Your task to perform on an android device: turn on data saver in the chrome app Image 0: 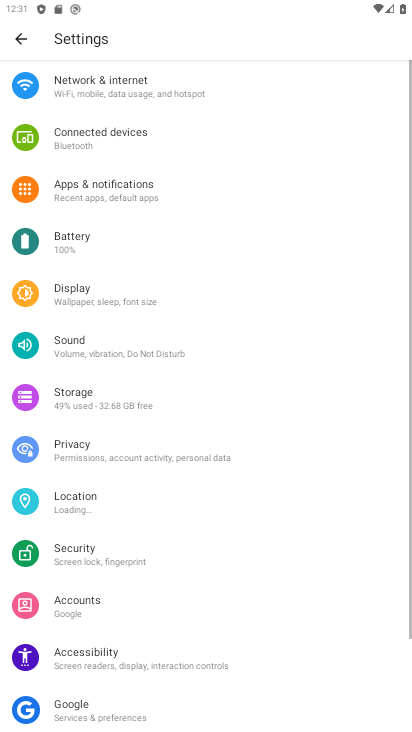
Step 0: press home button
Your task to perform on an android device: turn on data saver in the chrome app Image 1: 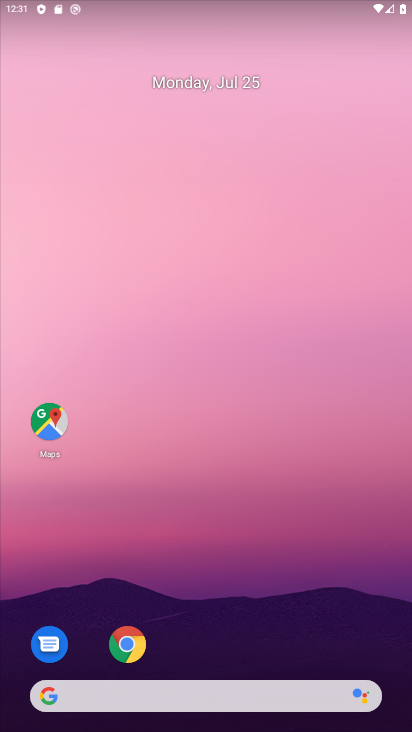
Step 1: drag from (197, 695) to (207, 213)
Your task to perform on an android device: turn on data saver in the chrome app Image 2: 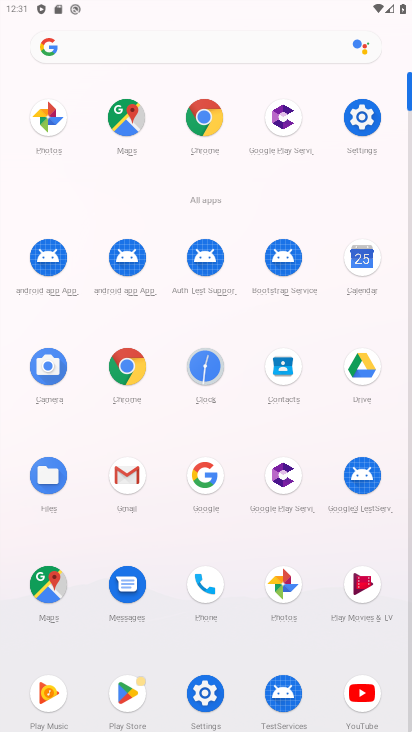
Step 2: click (128, 369)
Your task to perform on an android device: turn on data saver in the chrome app Image 3: 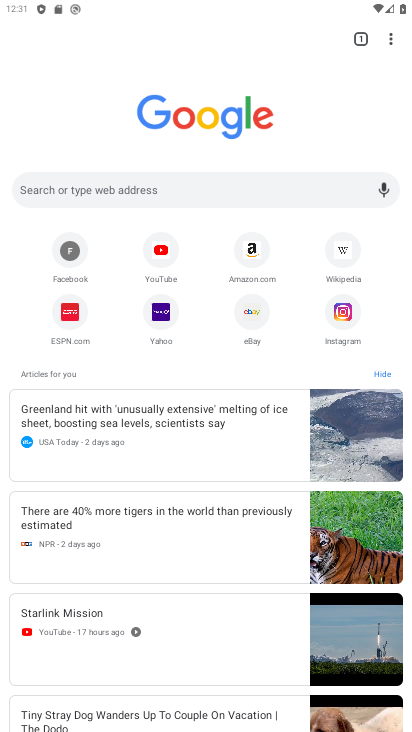
Step 3: click (392, 37)
Your task to perform on an android device: turn on data saver in the chrome app Image 4: 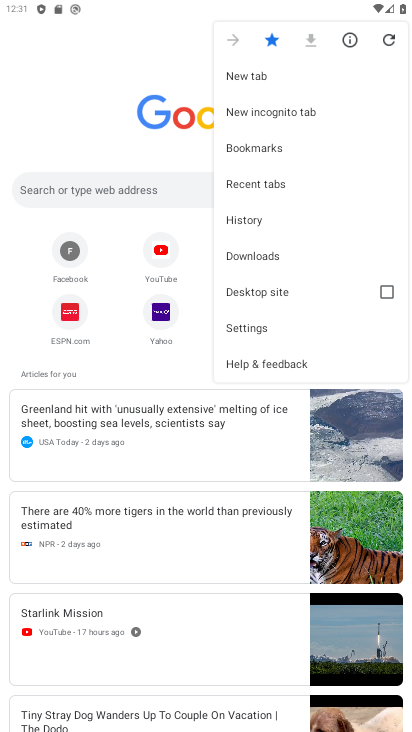
Step 4: click (249, 328)
Your task to perform on an android device: turn on data saver in the chrome app Image 5: 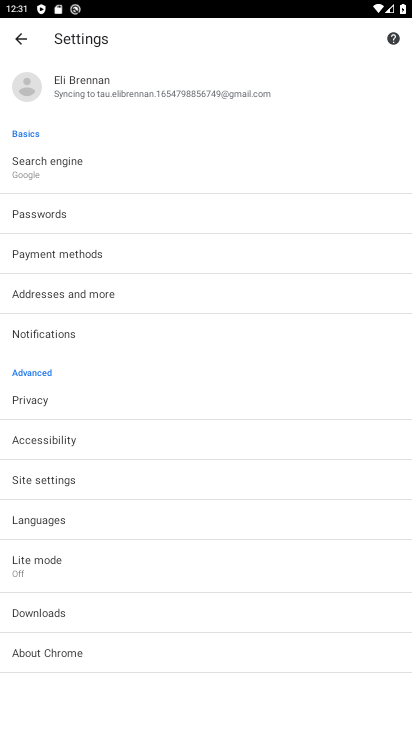
Step 5: click (36, 561)
Your task to perform on an android device: turn on data saver in the chrome app Image 6: 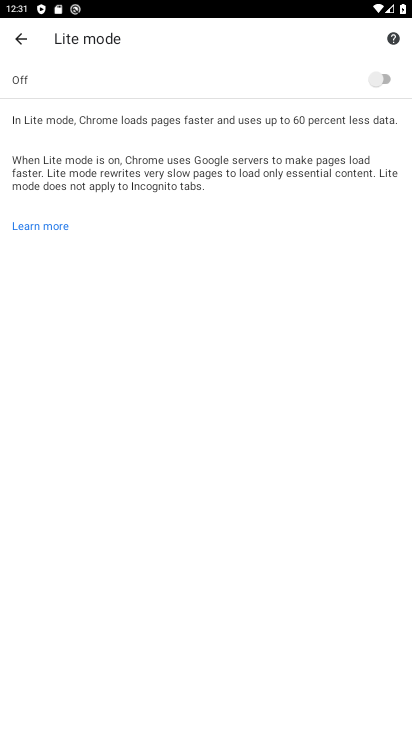
Step 6: click (384, 73)
Your task to perform on an android device: turn on data saver in the chrome app Image 7: 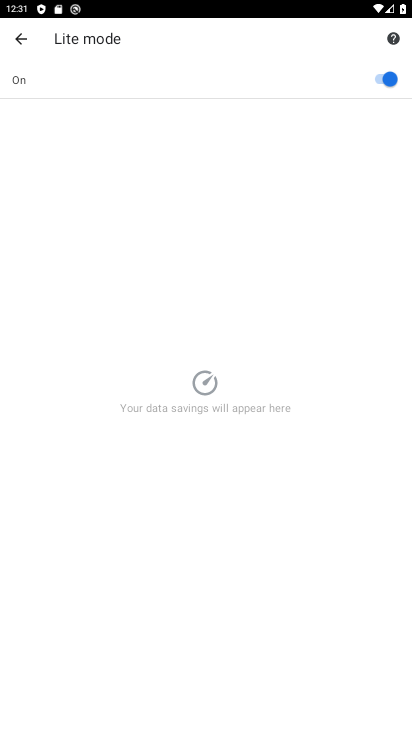
Step 7: task complete